Your task to perform on an android device: change the upload size in google photos Image 0: 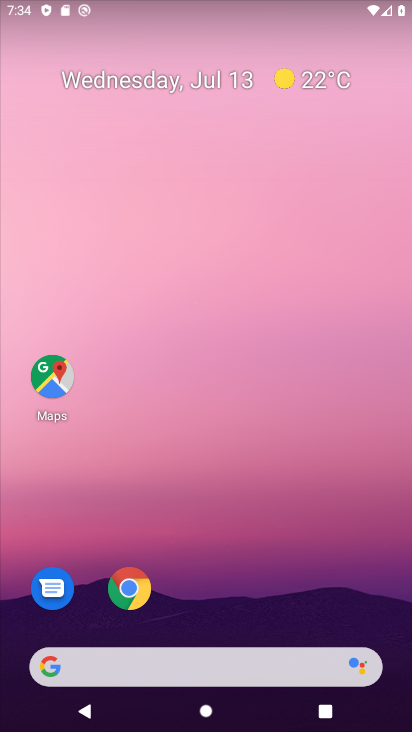
Step 0: drag from (204, 602) to (204, 257)
Your task to perform on an android device: change the upload size in google photos Image 1: 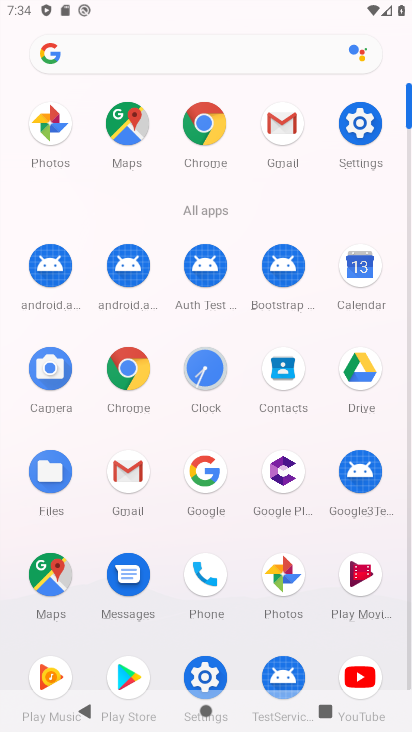
Step 1: click (283, 573)
Your task to perform on an android device: change the upload size in google photos Image 2: 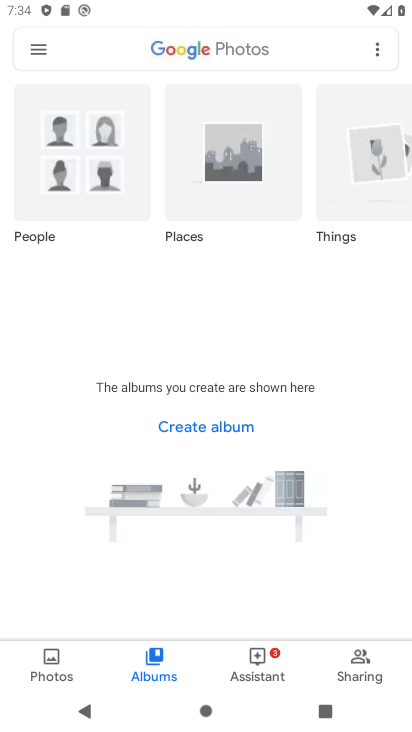
Step 2: click (40, 41)
Your task to perform on an android device: change the upload size in google photos Image 3: 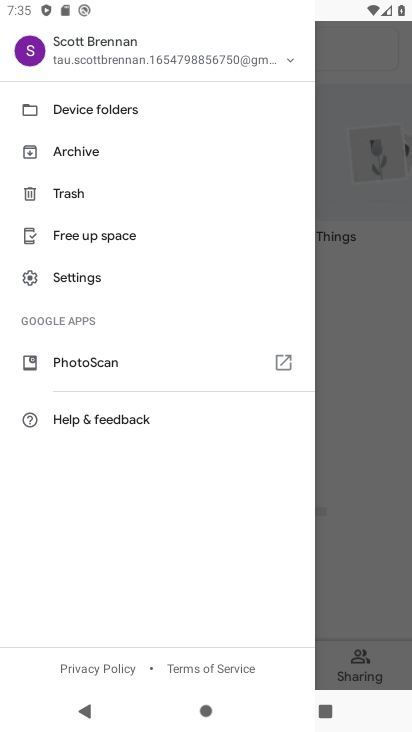
Step 3: click (90, 287)
Your task to perform on an android device: change the upload size in google photos Image 4: 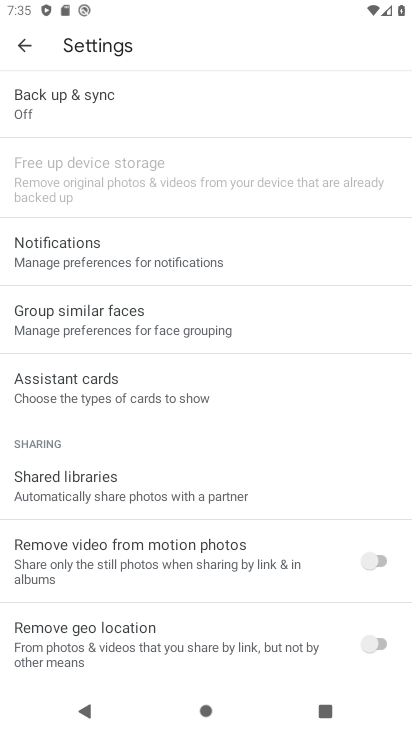
Step 4: click (128, 97)
Your task to perform on an android device: change the upload size in google photos Image 5: 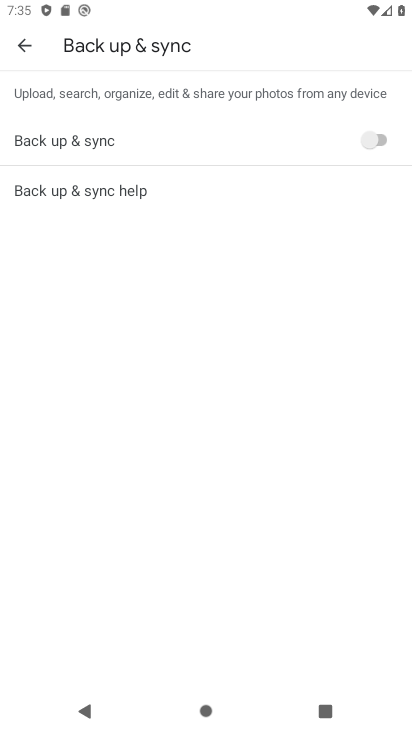
Step 5: click (13, 41)
Your task to perform on an android device: change the upload size in google photos Image 6: 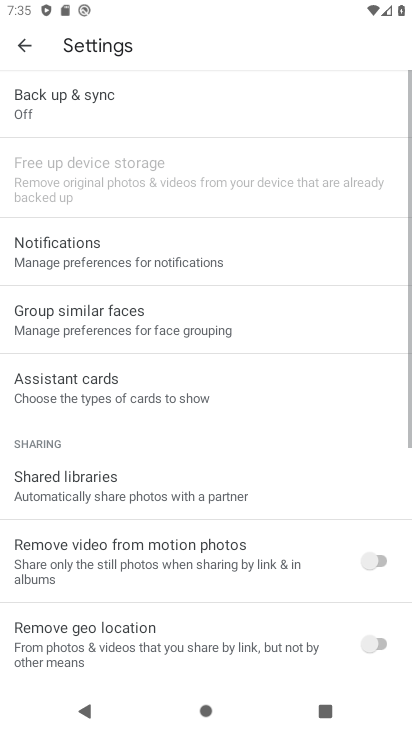
Step 6: click (141, 248)
Your task to perform on an android device: change the upload size in google photos Image 7: 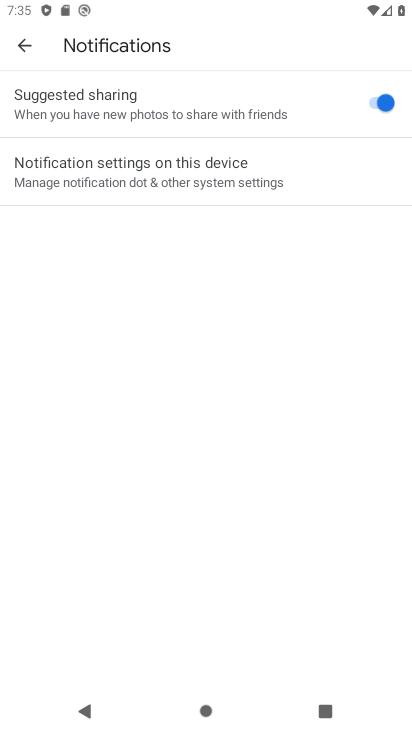
Step 7: click (105, 163)
Your task to perform on an android device: change the upload size in google photos Image 8: 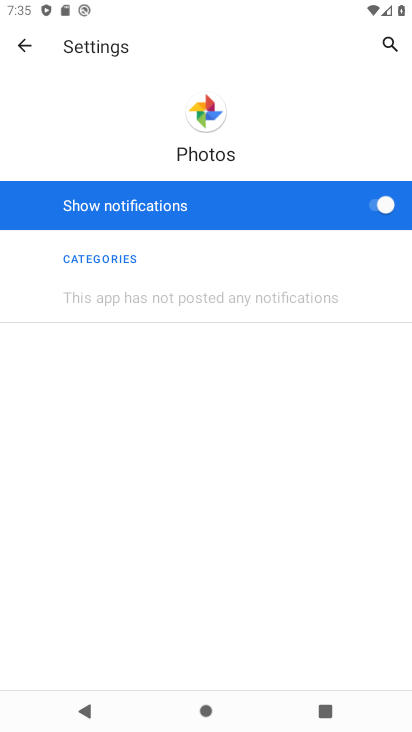
Step 8: click (17, 38)
Your task to perform on an android device: change the upload size in google photos Image 9: 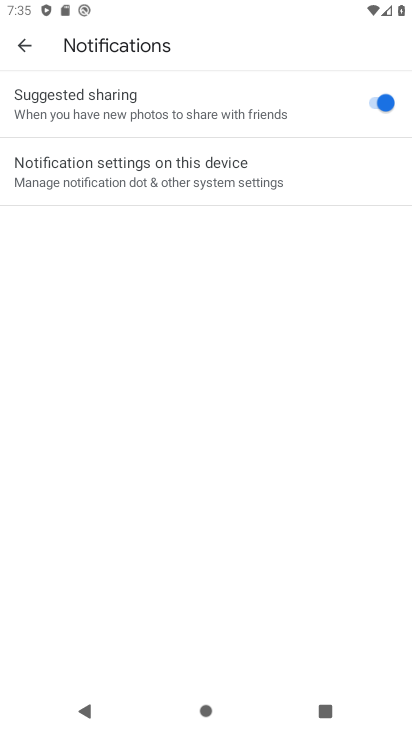
Step 9: click (12, 45)
Your task to perform on an android device: change the upload size in google photos Image 10: 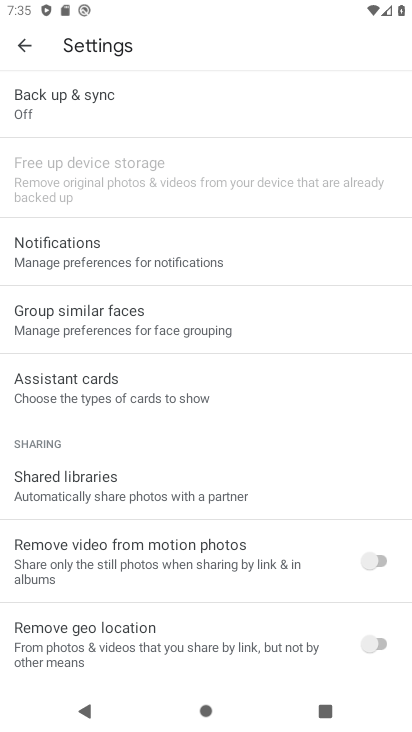
Step 10: task complete